Your task to perform on an android device: View the shopping cart on bestbuy. Search for razer nari on bestbuy, select the first entry, add it to the cart, then select checkout. Image 0: 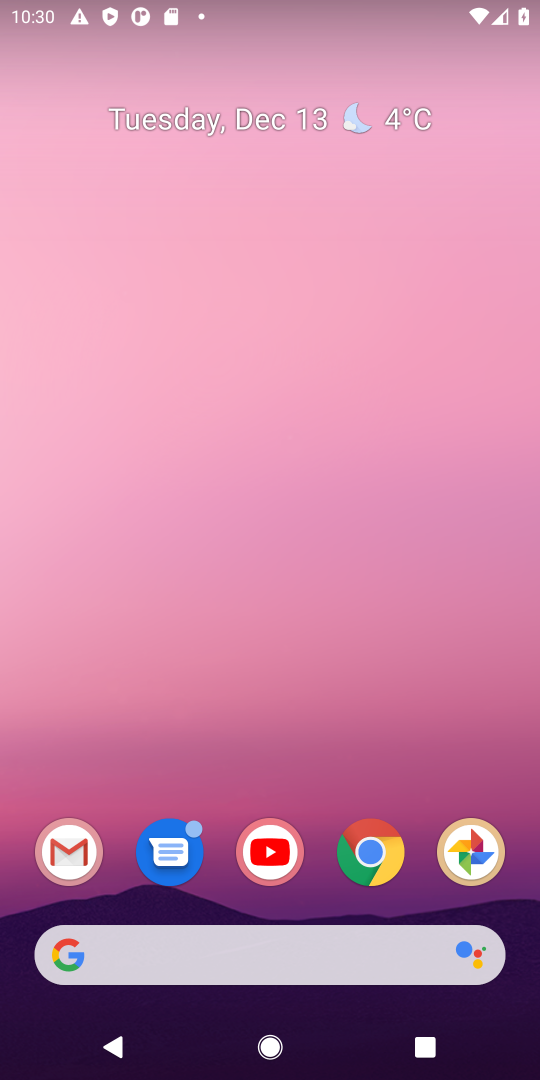
Step 0: press home button
Your task to perform on an android device: View the shopping cart on bestbuy. Search for razer nari on bestbuy, select the first entry, add it to the cart, then select checkout. Image 1: 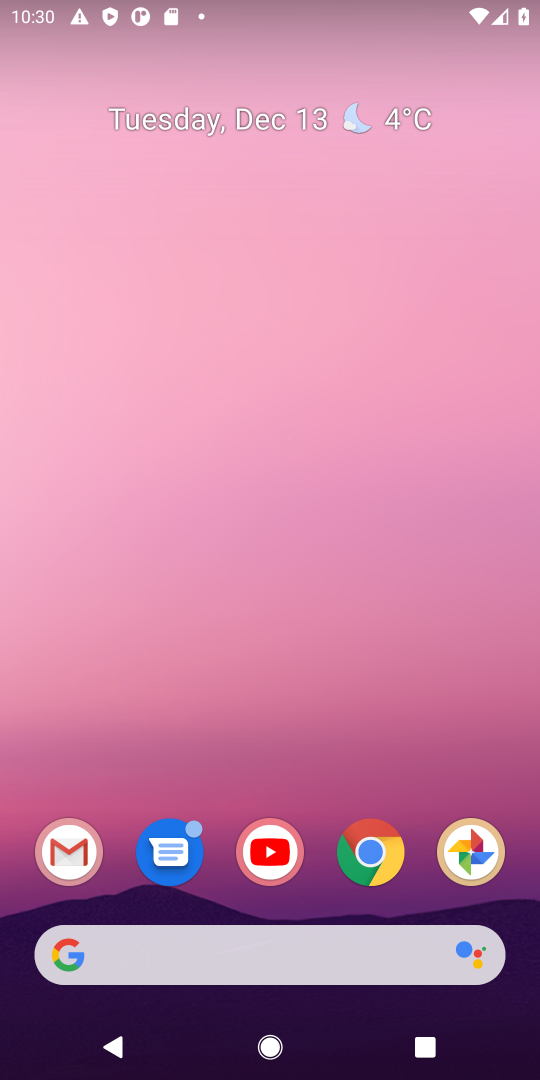
Step 1: click (106, 966)
Your task to perform on an android device: View the shopping cart on bestbuy. Search for razer nari on bestbuy, select the first entry, add it to the cart, then select checkout. Image 2: 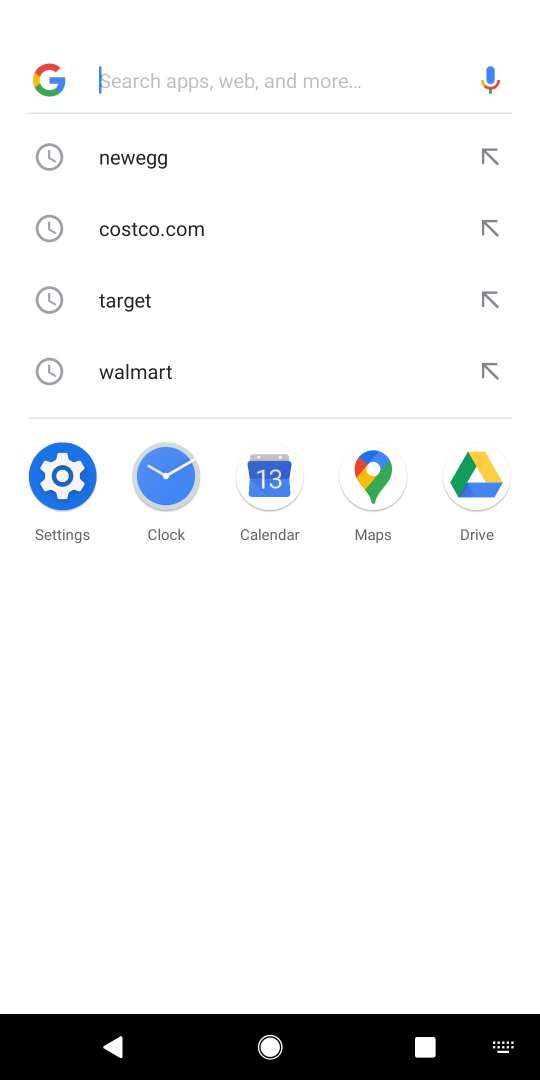
Step 2: type " bestbuy"
Your task to perform on an android device: View the shopping cart on bestbuy. Search for razer nari on bestbuy, select the first entry, add it to the cart, then select checkout. Image 3: 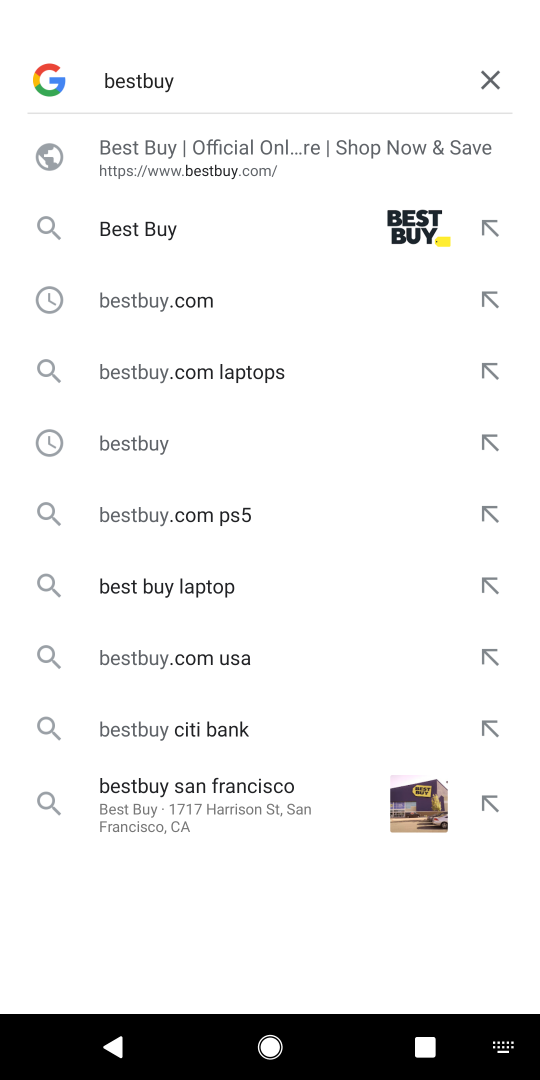
Step 3: press enter
Your task to perform on an android device: View the shopping cart on bestbuy. Search for razer nari on bestbuy, select the first entry, add it to the cart, then select checkout. Image 4: 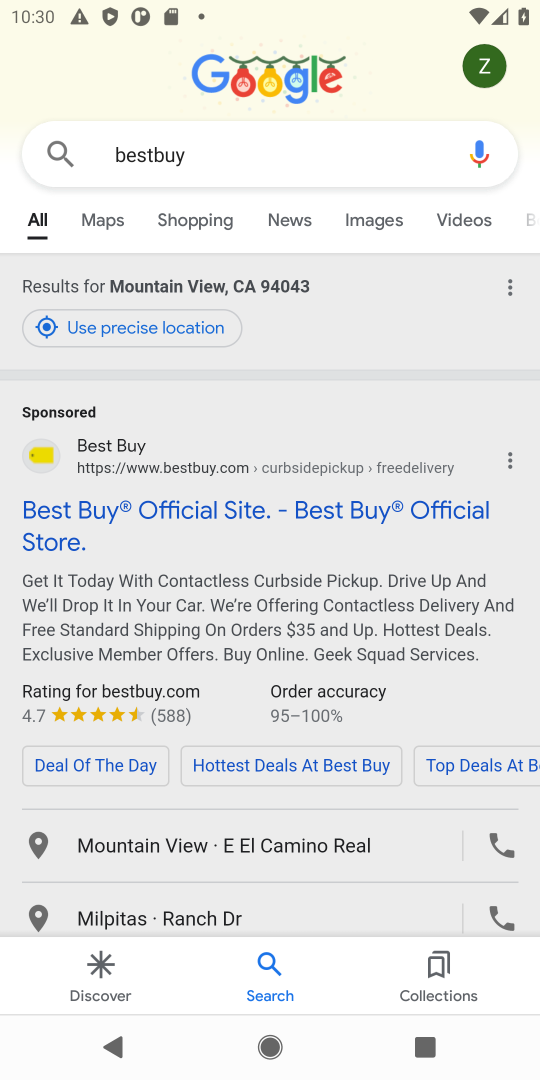
Step 4: click (211, 503)
Your task to perform on an android device: View the shopping cart on bestbuy. Search for razer nari on bestbuy, select the first entry, add it to the cart, then select checkout. Image 5: 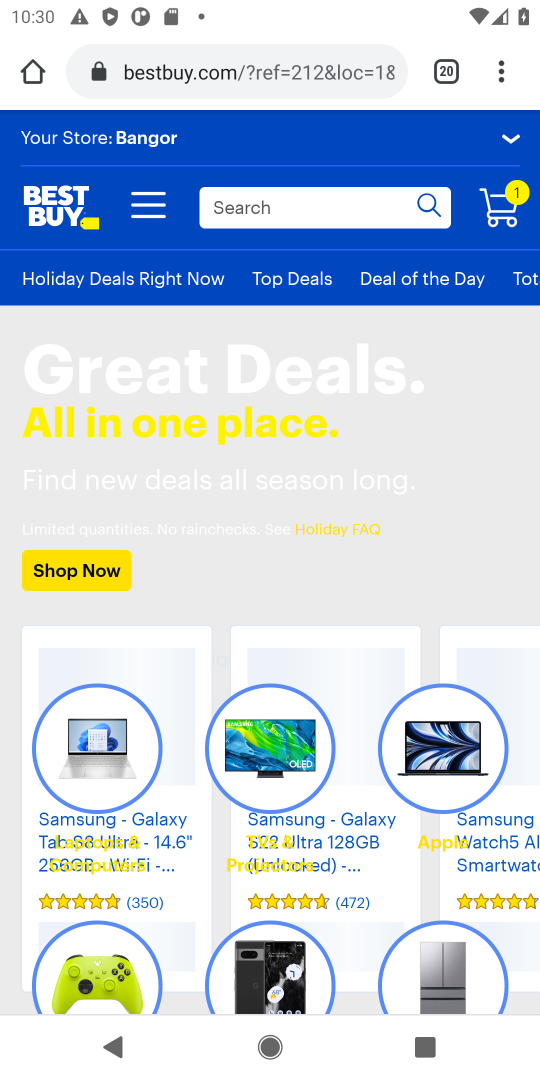
Step 5: click (503, 210)
Your task to perform on an android device: View the shopping cart on bestbuy. Search for razer nari on bestbuy, select the first entry, add it to the cart, then select checkout. Image 6: 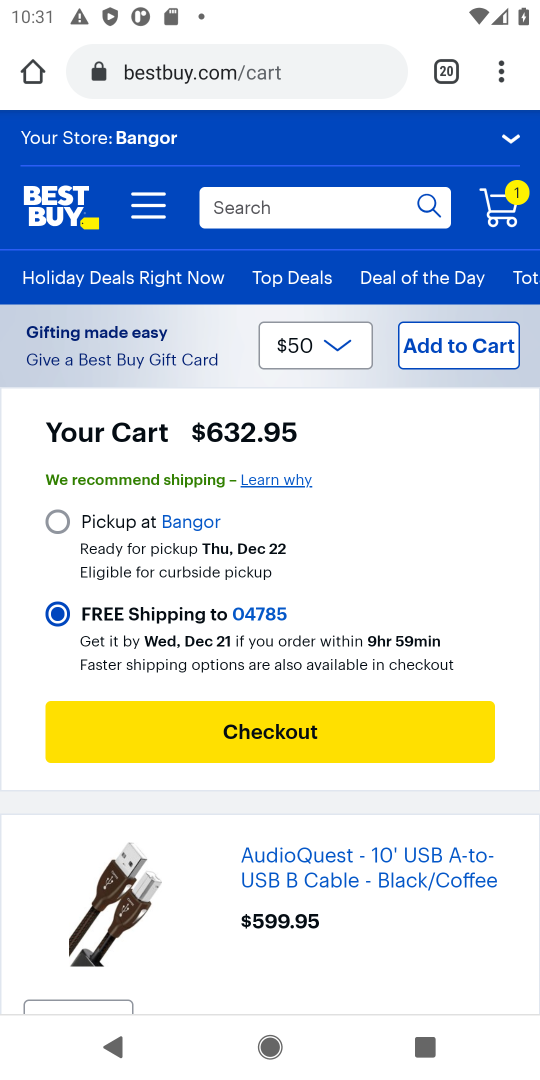
Step 6: click (247, 203)
Your task to perform on an android device: View the shopping cart on bestbuy. Search for razer nari on bestbuy, select the first entry, add it to the cart, then select checkout. Image 7: 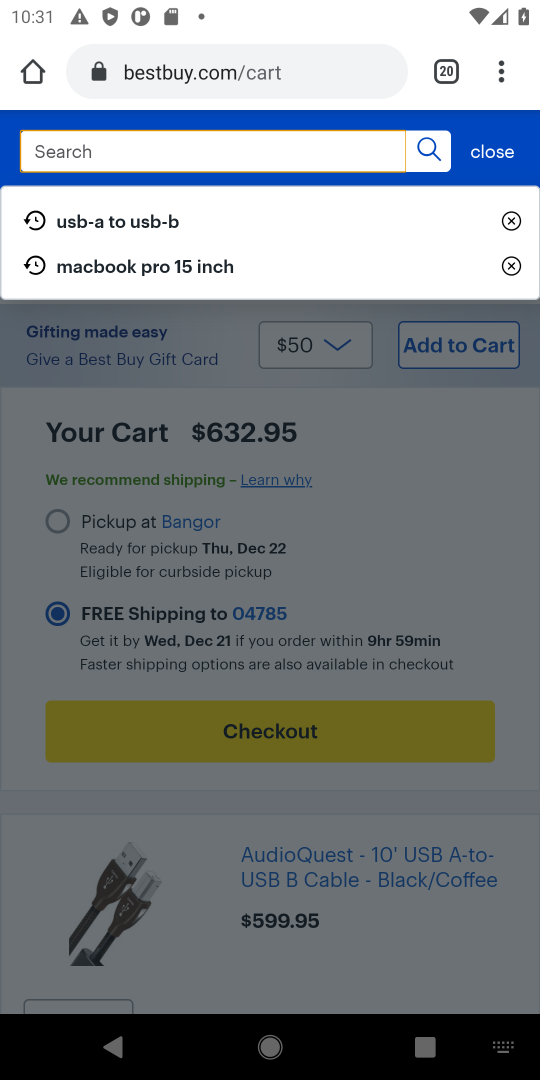
Step 7: type "razer nari"
Your task to perform on an android device: View the shopping cart on bestbuy. Search for razer nari on bestbuy, select the first entry, add it to the cart, then select checkout. Image 8: 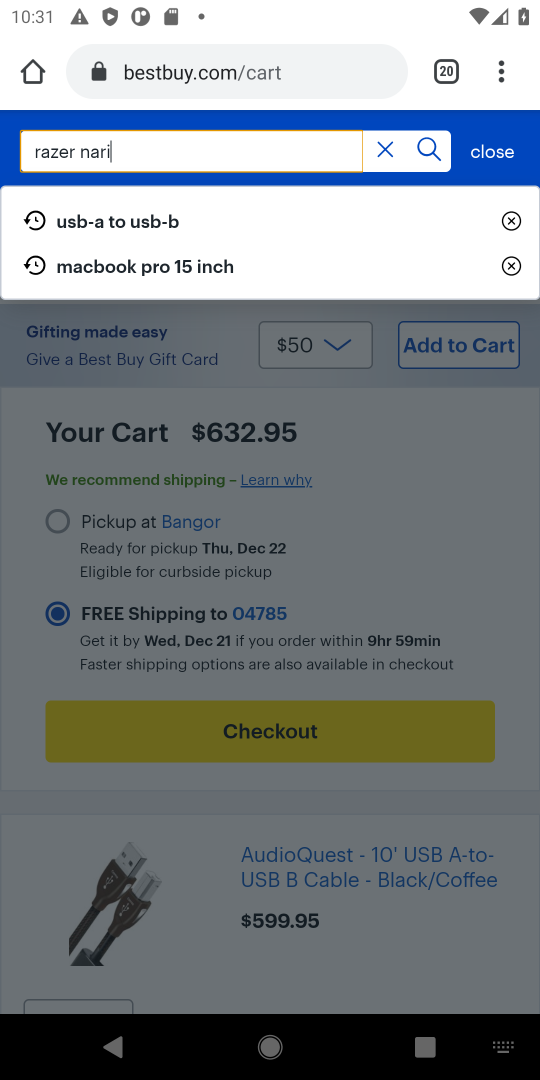
Step 8: press enter
Your task to perform on an android device: View the shopping cart on bestbuy. Search for razer nari on bestbuy, select the first entry, add it to the cart, then select checkout. Image 9: 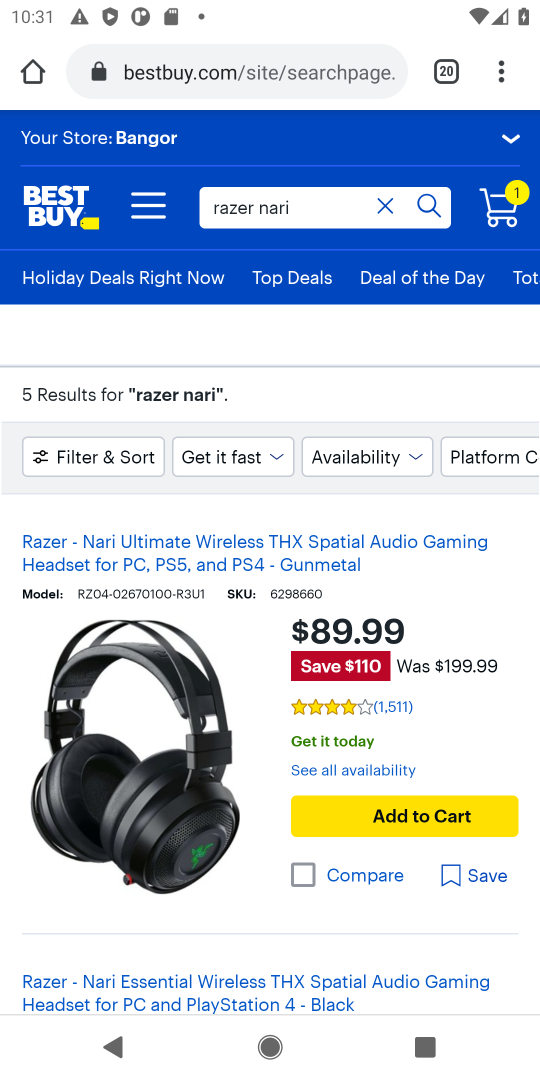
Step 9: drag from (293, 939) to (326, 659)
Your task to perform on an android device: View the shopping cart on bestbuy. Search for razer nari on bestbuy, select the first entry, add it to the cart, then select checkout. Image 10: 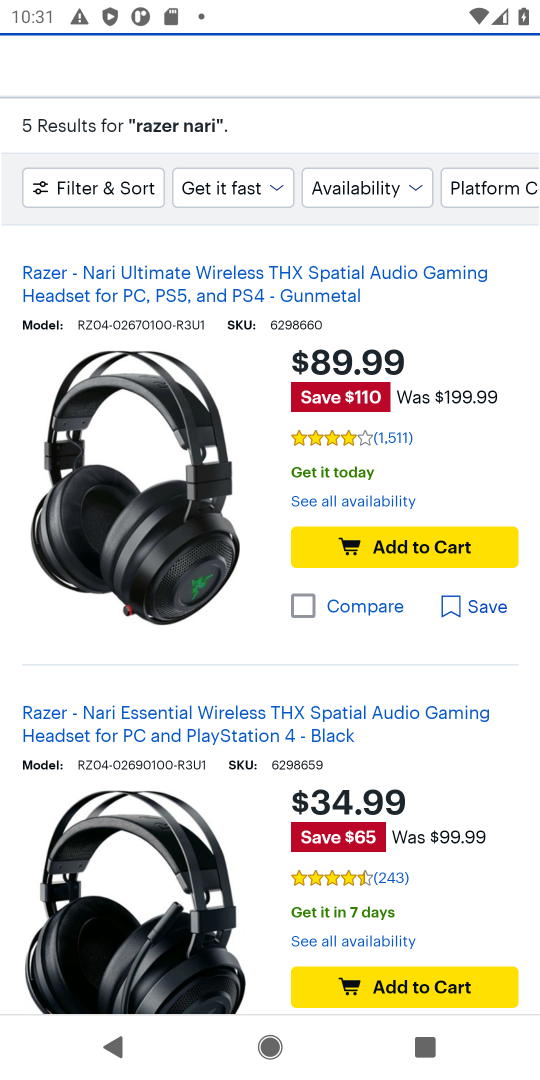
Step 10: click (413, 542)
Your task to perform on an android device: View the shopping cart on bestbuy. Search for razer nari on bestbuy, select the first entry, add it to the cart, then select checkout. Image 11: 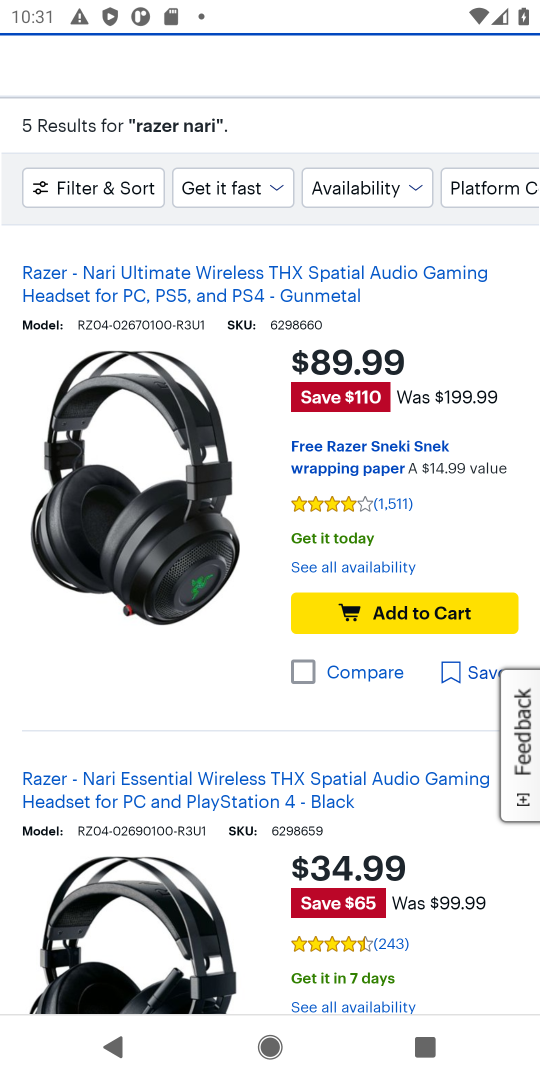
Step 11: click (400, 615)
Your task to perform on an android device: View the shopping cart on bestbuy. Search for razer nari on bestbuy, select the first entry, add it to the cart, then select checkout. Image 12: 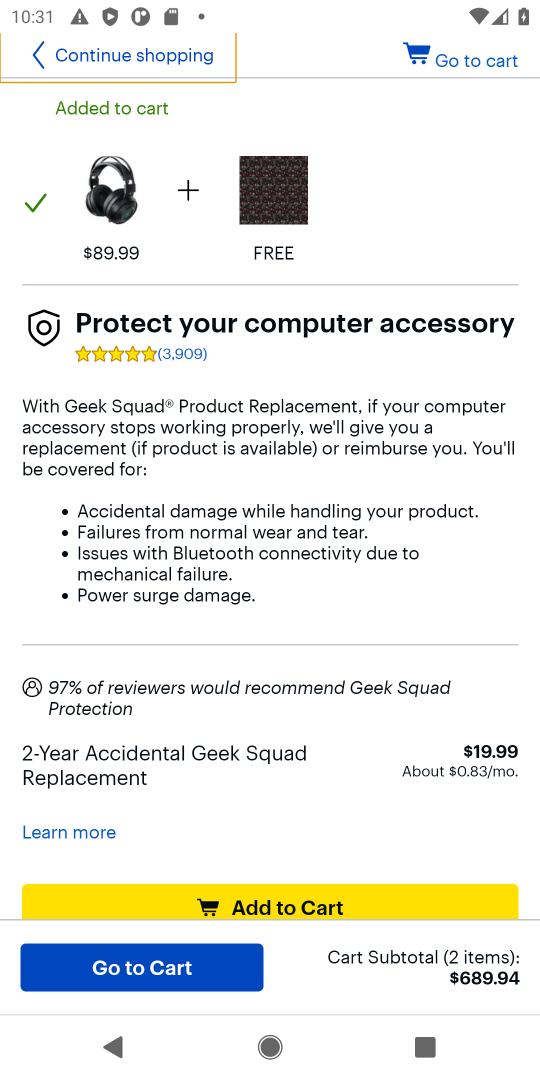
Step 12: task complete